Your task to perform on an android device: move an email to a new category in the gmail app Image 0: 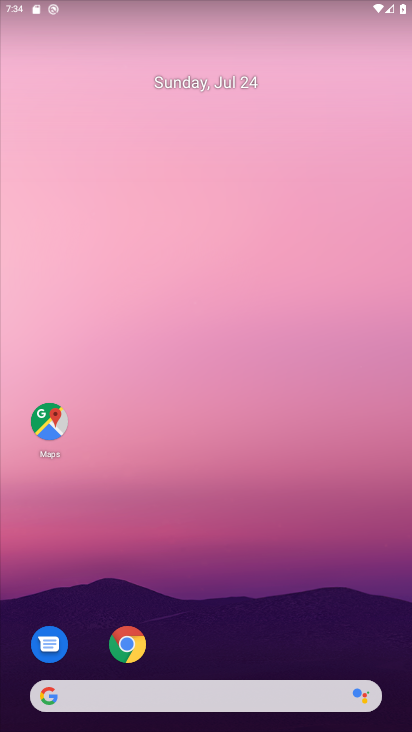
Step 0: drag from (222, 638) to (172, 1)
Your task to perform on an android device: move an email to a new category in the gmail app Image 1: 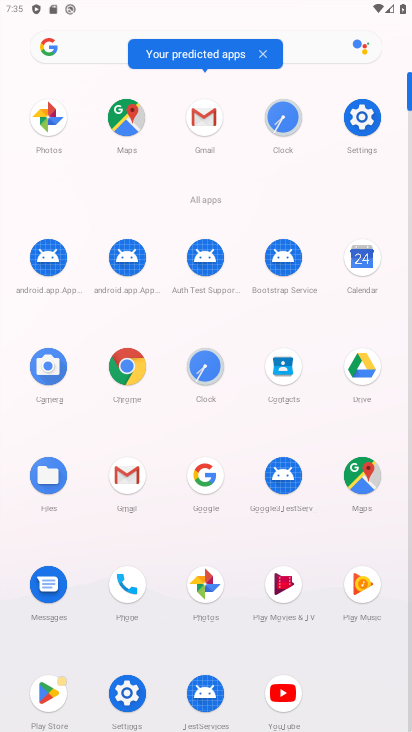
Step 1: click (134, 484)
Your task to perform on an android device: move an email to a new category in the gmail app Image 2: 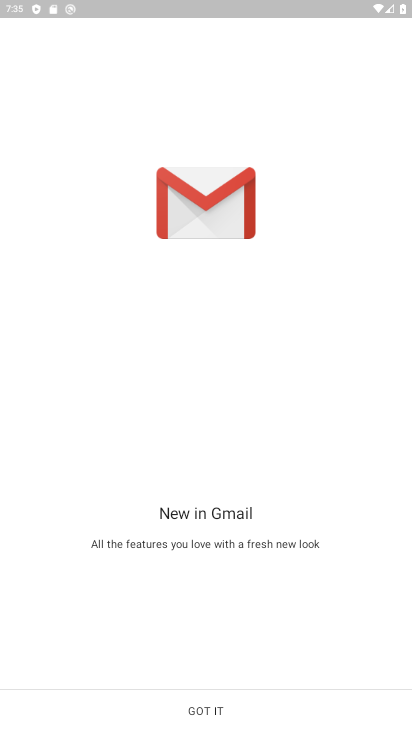
Step 2: click (221, 706)
Your task to perform on an android device: move an email to a new category in the gmail app Image 3: 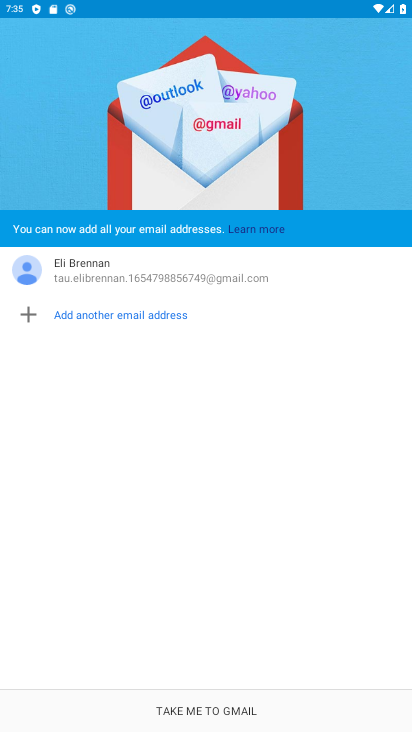
Step 3: click (230, 703)
Your task to perform on an android device: move an email to a new category in the gmail app Image 4: 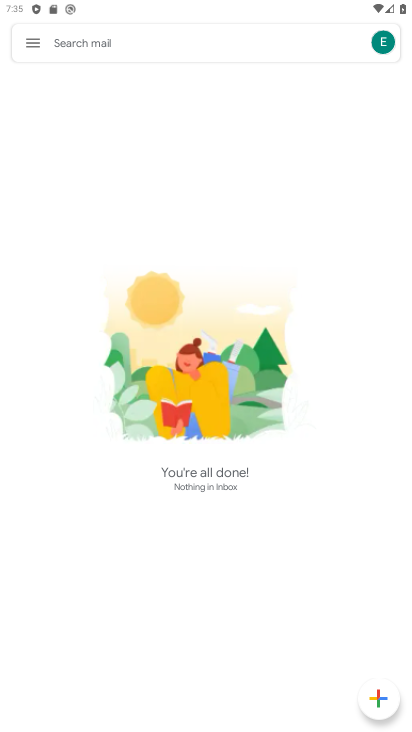
Step 4: task complete